Your task to perform on an android device: What's on my calendar tomorrow? Image 0: 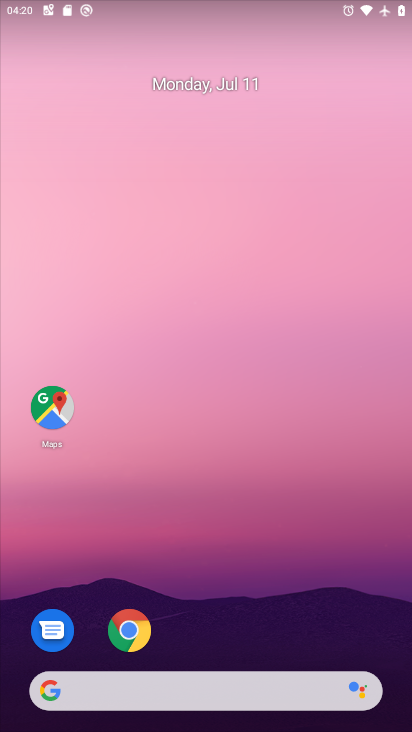
Step 0: drag from (229, 642) to (253, 332)
Your task to perform on an android device: What's on my calendar tomorrow? Image 1: 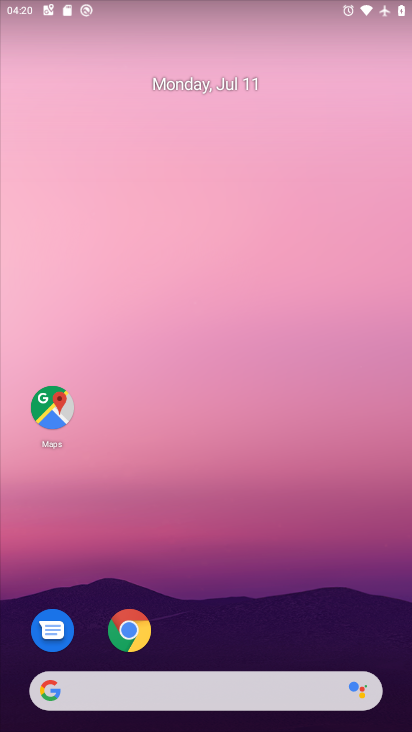
Step 1: drag from (267, 643) to (208, 0)
Your task to perform on an android device: What's on my calendar tomorrow? Image 2: 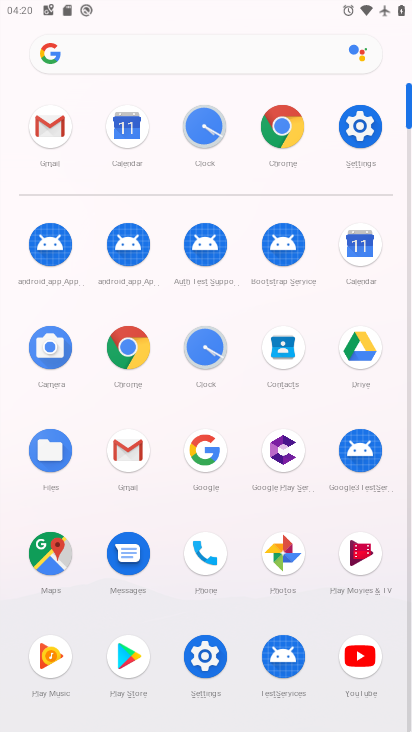
Step 2: click (361, 132)
Your task to perform on an android device: What's on my calendar tomorrow? Image 3: 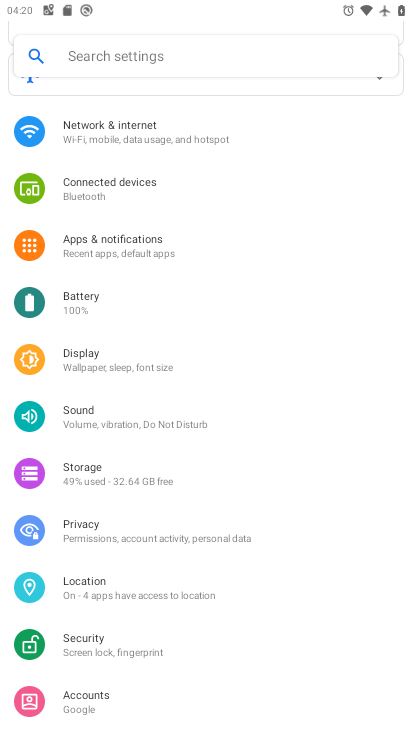
Step 3: press home button
Your task to perform on an android device: What's on my calendar tomorrow? Image 4: 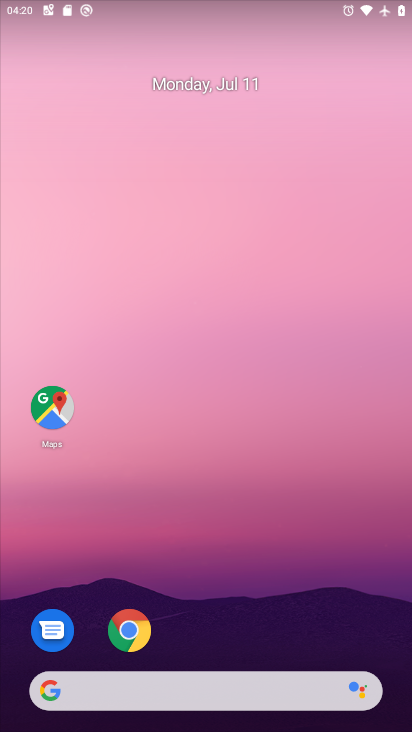
Step 4: drag from (237, 610) to (242, 114)
Your task to perform on an android device: What's on my calendar tomorrow? Image 5: 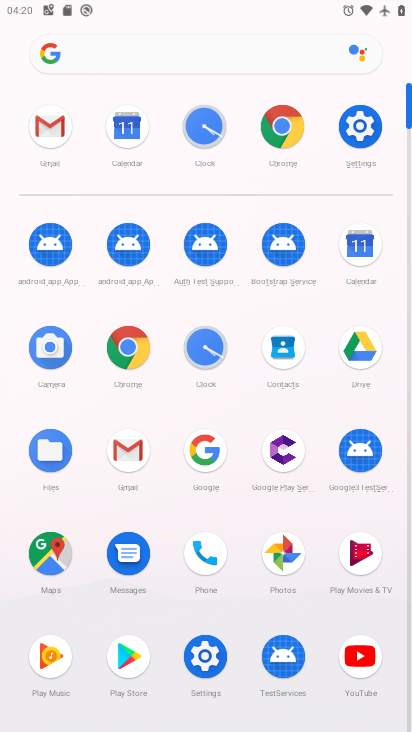
Step 5: click (115, 138)
Your task to perform on an android device: What's on my calendar tomorrow? Image 6: 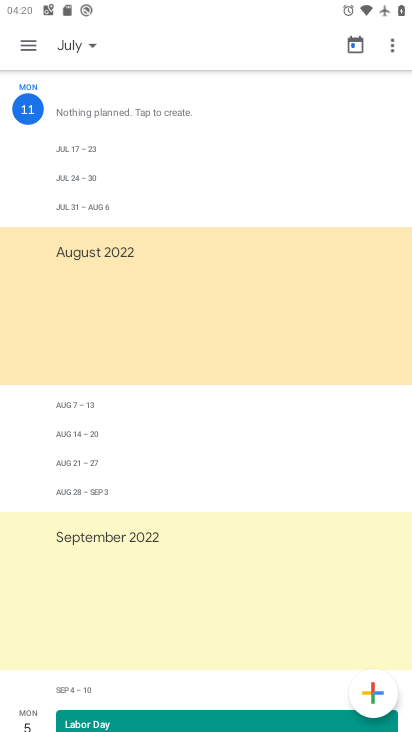
Step 6: click (82, 57)
Your task to perform on an android device: What's on my calendar tomorrow? Image 7: 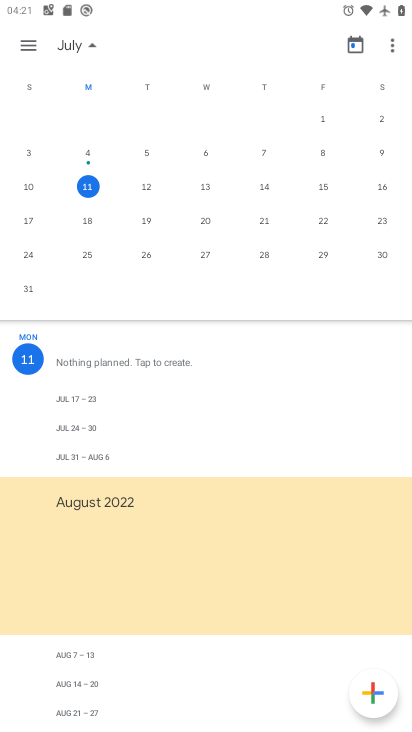
Step 7: click (147, 184)
Your task to perform on an android device: What's on my calendar tomorrow? Image 8: 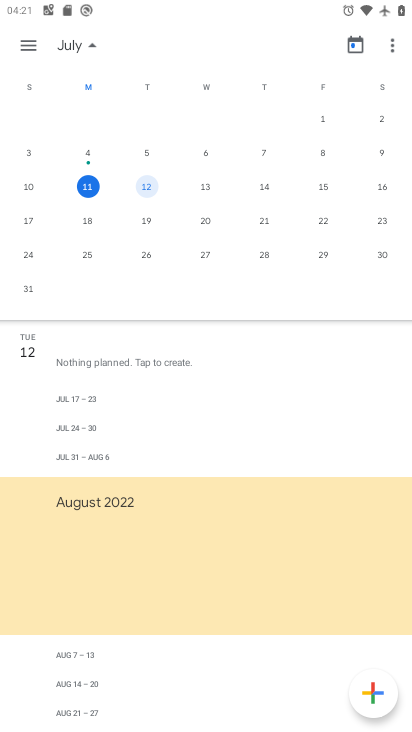
Step 8: task complete